Your task to perform on an android device: Go to settings Image 0: 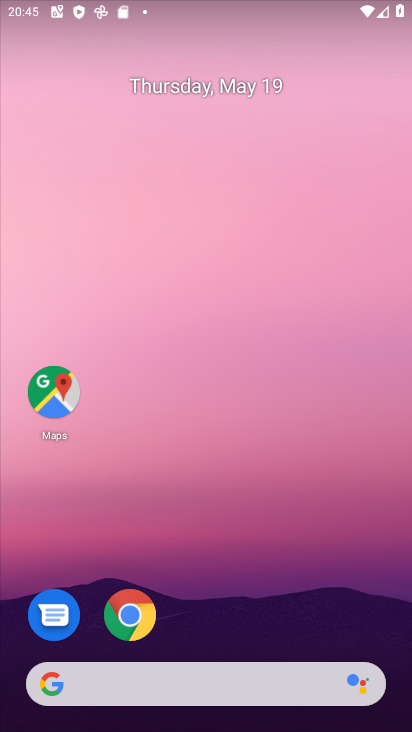
Step 0: drag from (203, 602) to (185, 85)
Your task to perform on an android device: Go to settings Image 1: 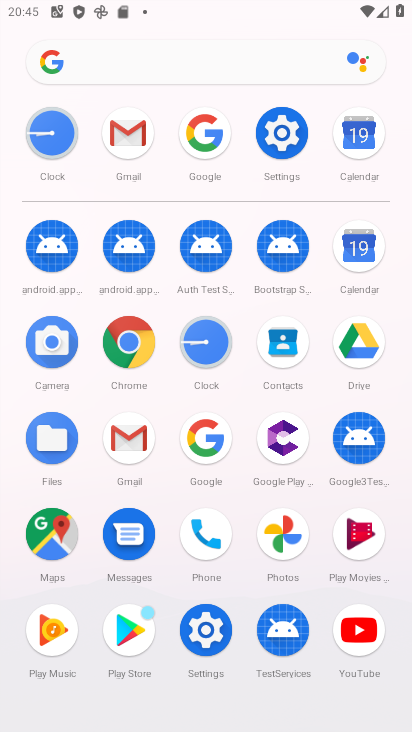
Step 1: click (277, 139)
Your task to perform on an android device: Go to settings Image 2: 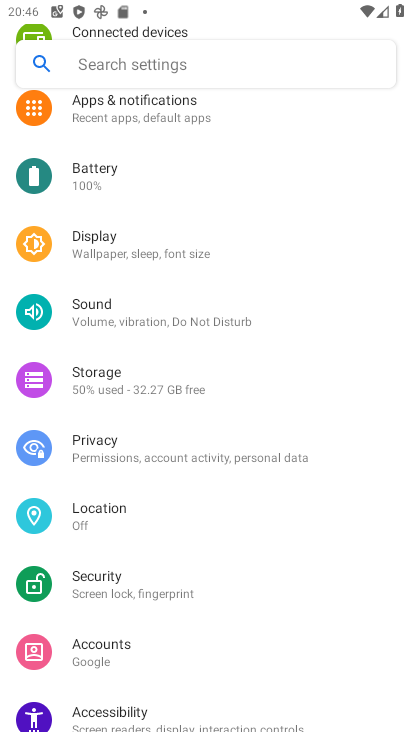
Step 2: task complete